Your task to perform on an android device: Open the phone app and click the voicemail tab. Image 0: 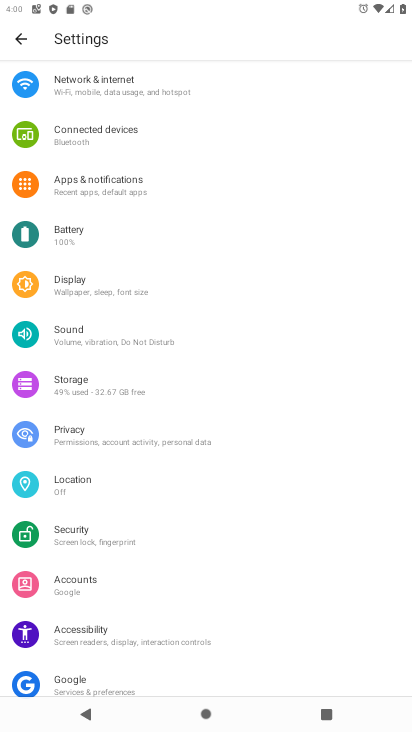
Step 0: press home button
Your task to perform on an android device: Open the phone app and click the voicemail tab. Image 1: 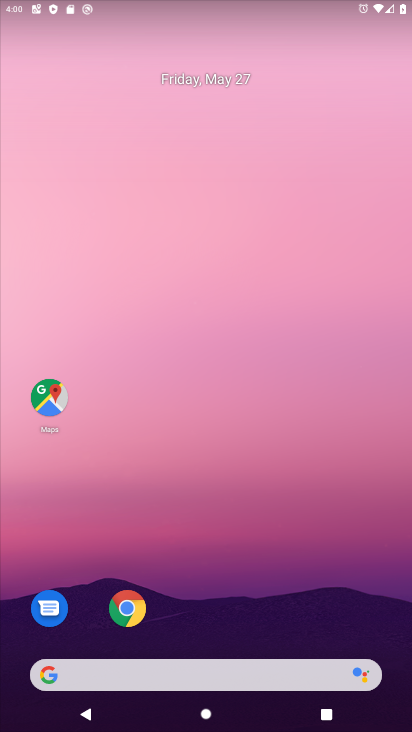
Step 1: drag from (223, 661) to (253, 206)
Your task to perform on an android device: Open the phone app and click the voicemail tab. Image 2: 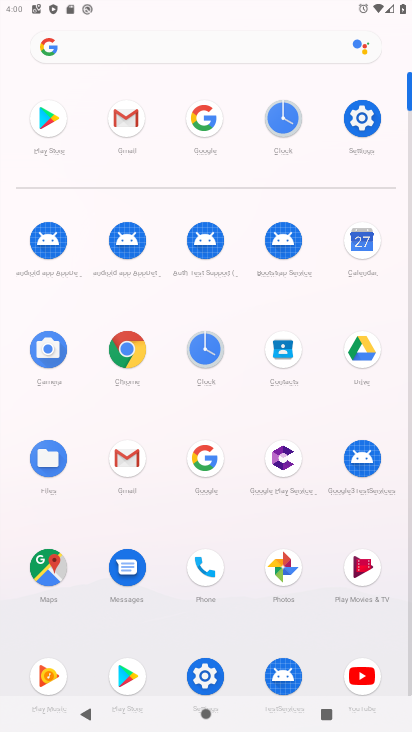
Step 2: click (216, 565)
Your task to perform on an android device: Open the phone app and click the voicemail tab. Image 3: 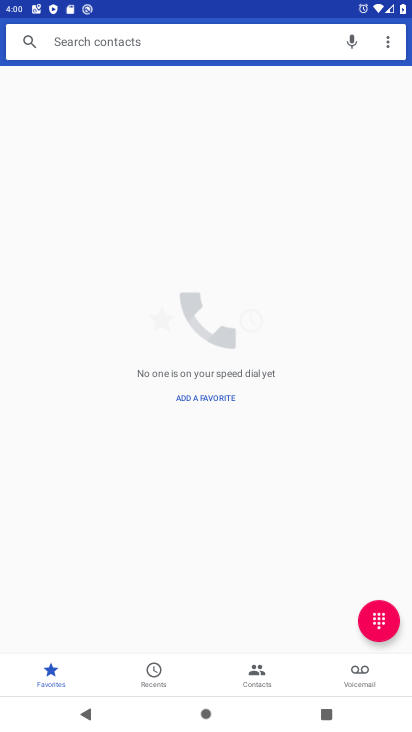
Step 3: click (354, 674)
Your task to perform on an android device: Open the phone app and click the voicemail tab. Image 4: 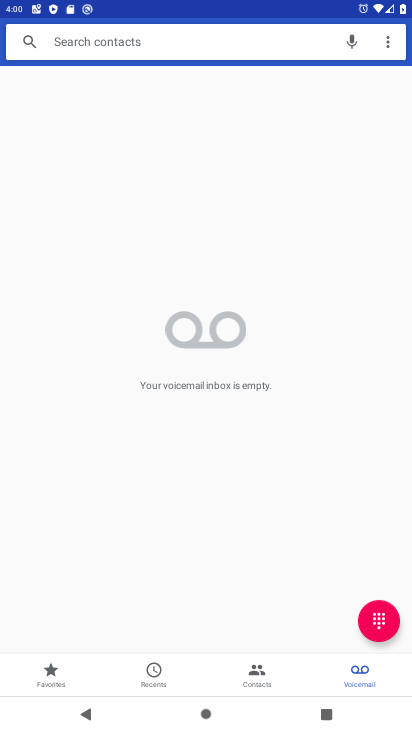
Step 4: task complete